Your task to perform on an android device: change notification settings in the gmail app Image 0: 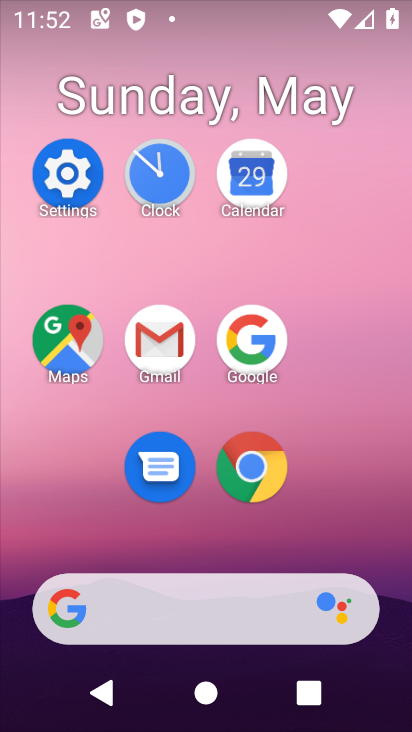
Step 0: click (159, 342)
Your task to perform on an android device: change notification settings in the gmail app Image 1: 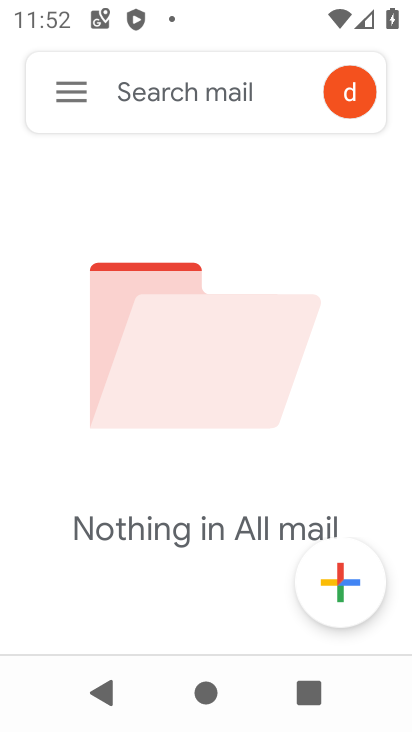
Step 1: click (66, 96)
Your task to perform on an android device: change notification settings in the gmail app Image 2: 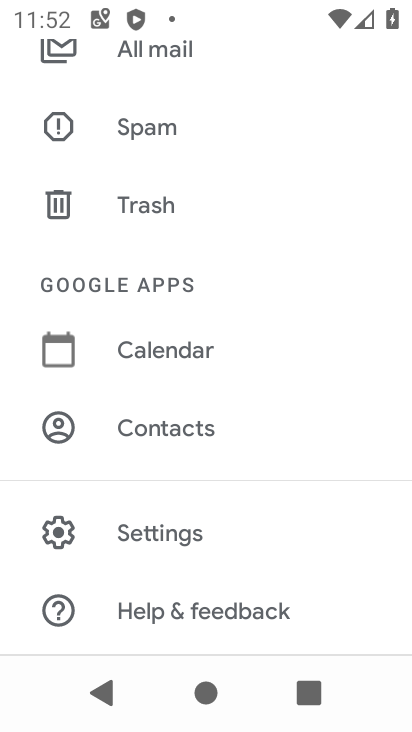
Step 2: drag from (196, 608) to (216, 277)
Your task to perform on an android device: change notification settings in the gmail app Image 3: 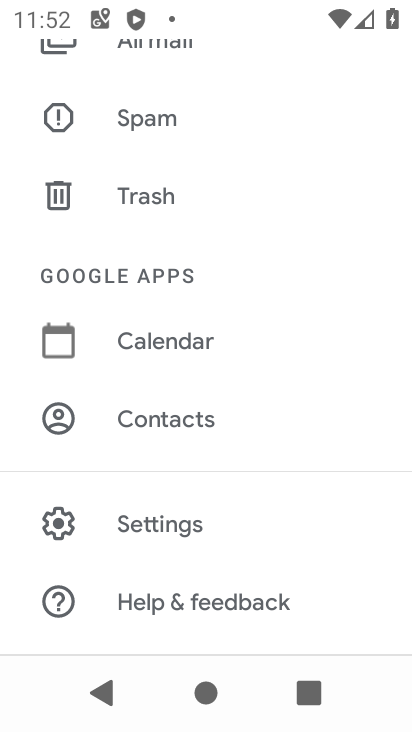
Step 3: click (197, 525)
Your task to perform on an android device: change notification settings in the gmail app Image 4: 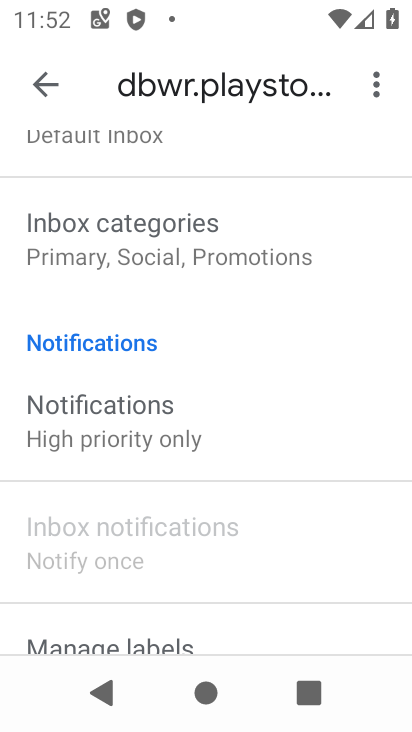
Step 4: click (188, 446)
Your task to perform on an android device: change notification settings in the gmail app Image 5: 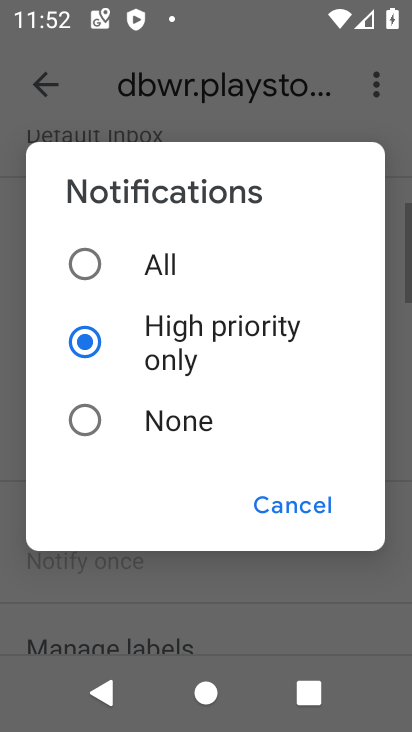
Step 5: click (160, 253)
Your task to perform on an android device: change notification settings in the gmail app Image 6: 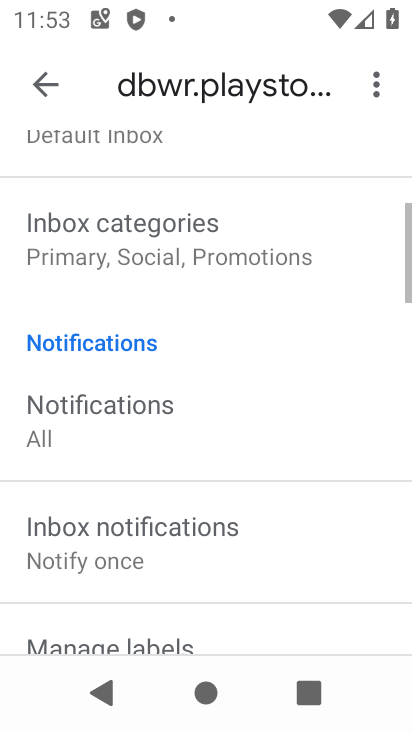
Step 6: task complete